Your task to perform on an android device: Open network settings Image 0: 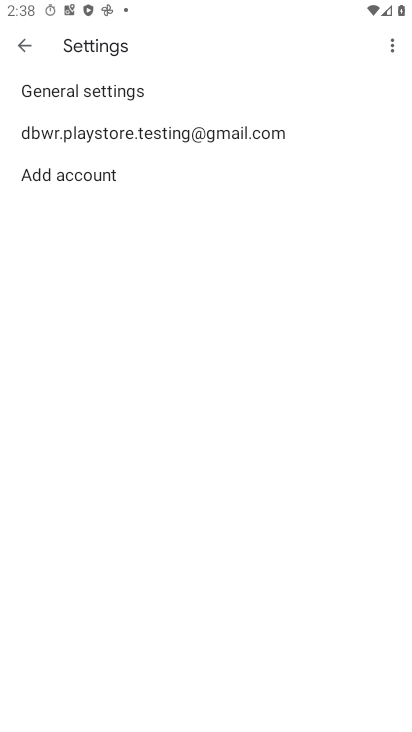
Step 0: press home button
Your task to perform on an android device: Open network settings Image 1: 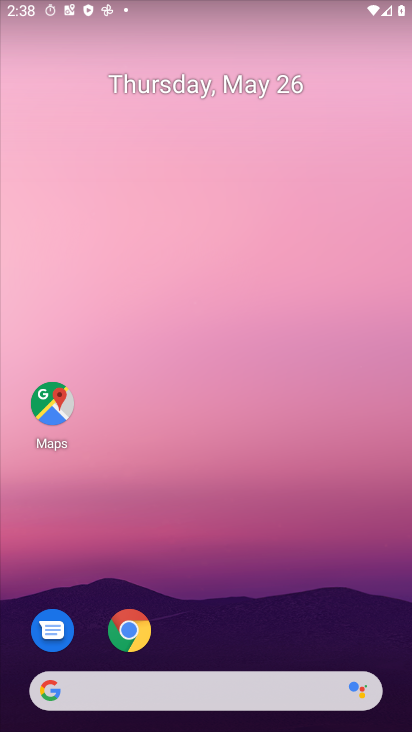
Step 1: drag from (286, 365) to (277, 12)
Your task to perform on an android device: Open network settings Image 2: 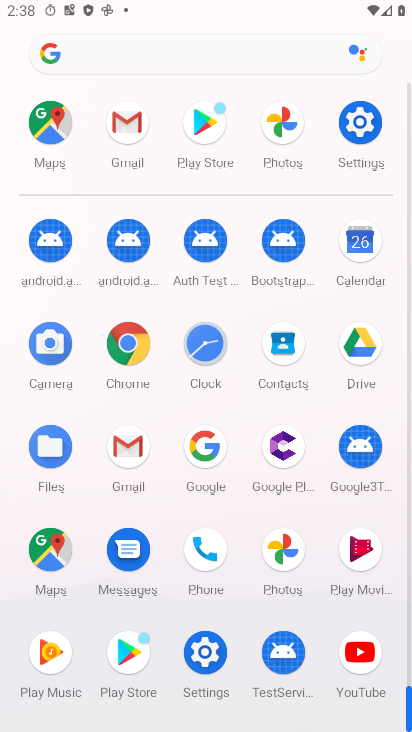
Step 2: click (349, 123)
Your task to perform on an android device: Open network settings Image 3: 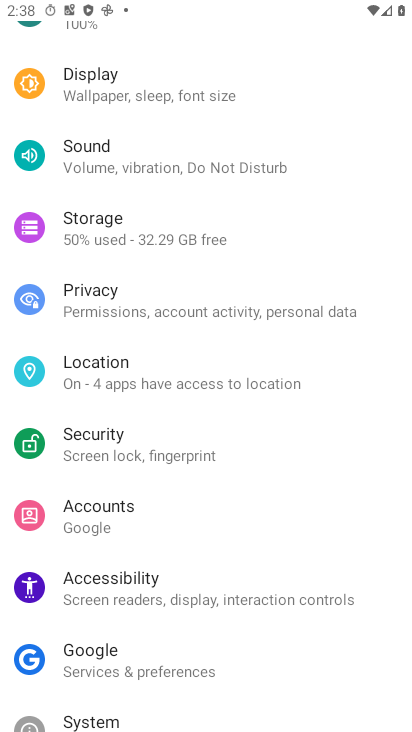
Step 3: drag from (361, 319) to (239, 720)
Your task to perform on an android device: Open network settings Image 4: 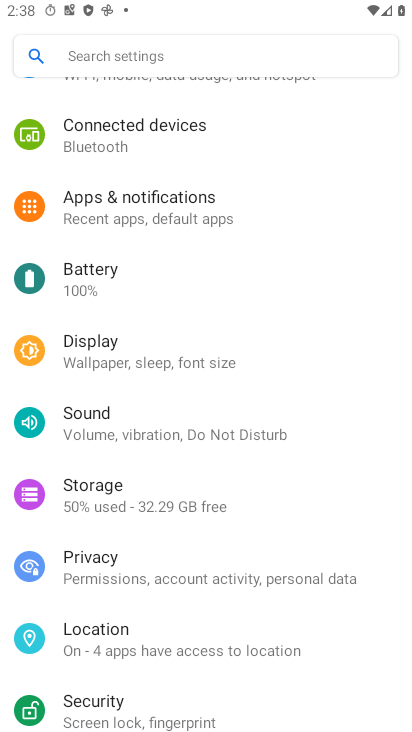
Step 4: drag from (243, 267) to (310, 654)
Your task to perform on an android device: Open network settings Image 5: 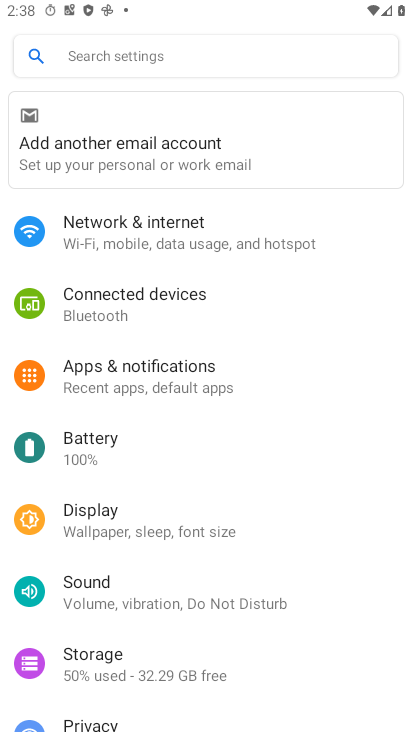
Step 5: click (224, 214)
Your task to perform on an android device: Open network settings Image 6: 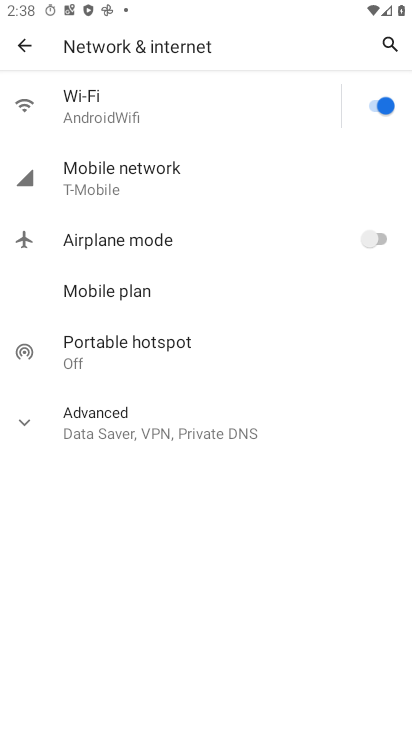
Step 6: task complete